Your task to perform on an android device: change the clock display to analog Image 0: 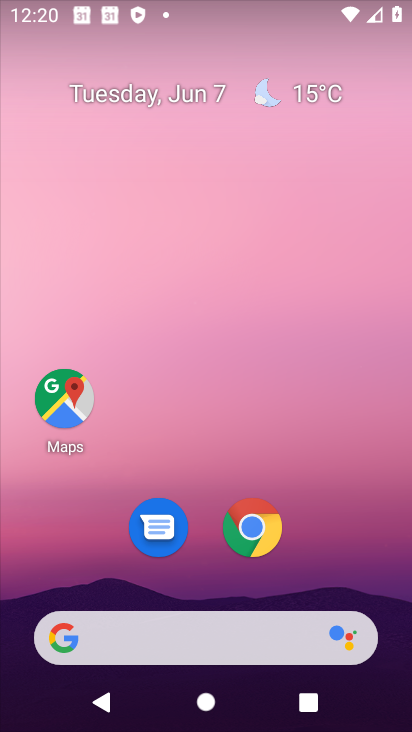
Step 0: drag from (238, 633) to (192, 268)
Your task to perform on an android device: change the clock display to analog Image 1: 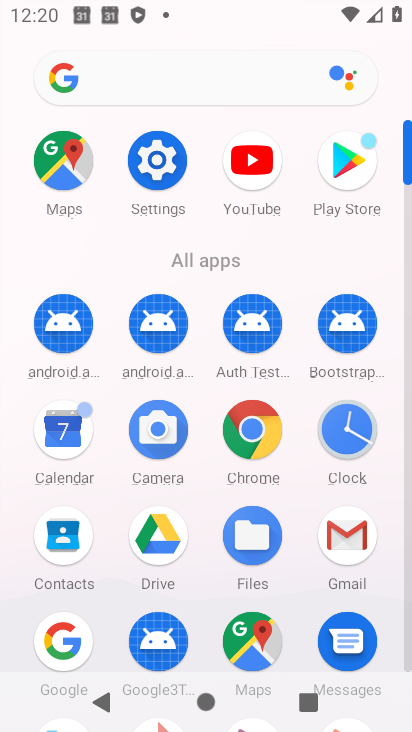
Step 1: click (354, 414)
Your task to perform on an android device: change the clock display to analog Image 2: 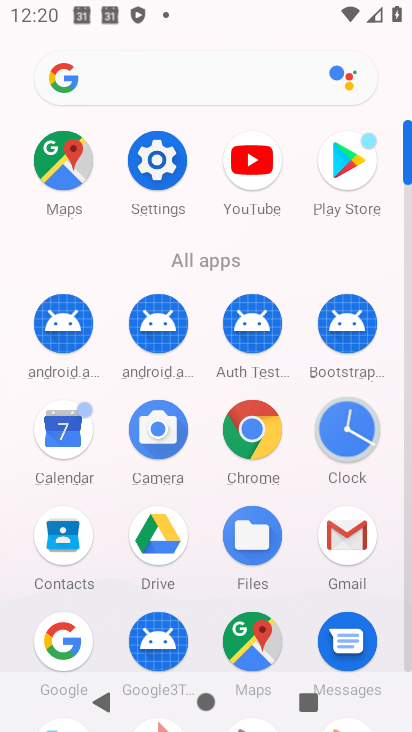
Step 2: click (346, 426)
Your task to perform on an android device: change the clock display to analog Image 3: 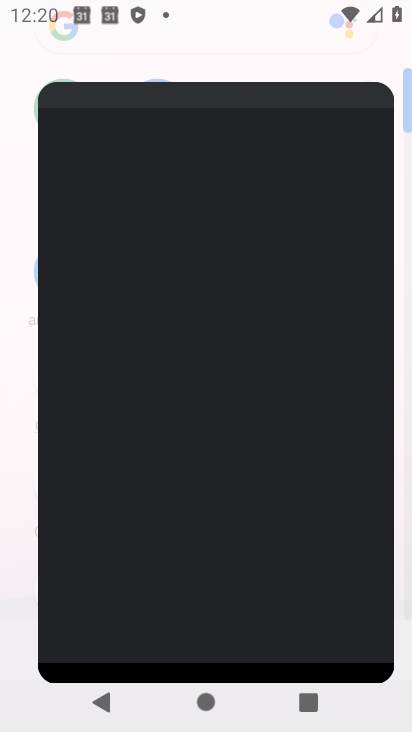
Step 3: click (351, 426)
Your task to perform on an android device: change the clock display to analog Image 4: 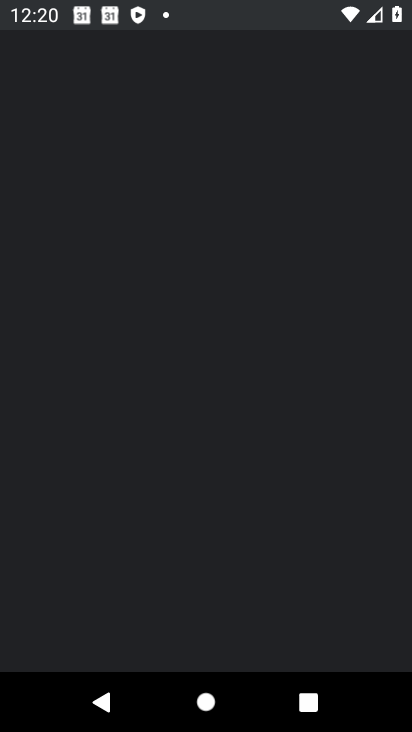
Step 4: click (355, 424)
Your task to perform on an android device: change the clock display to analog Image 5: 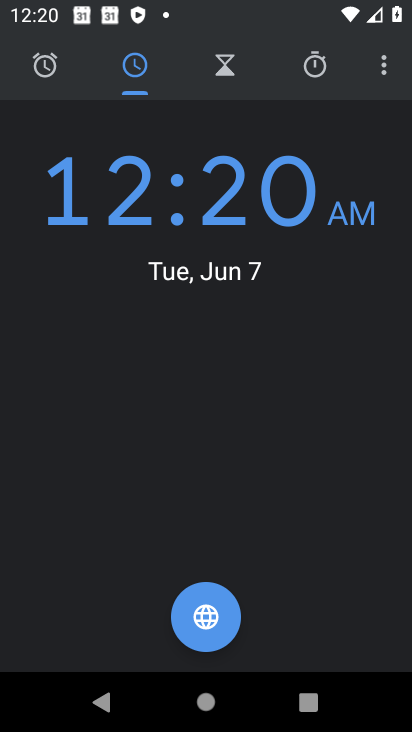
Step 5: click (383, 72)
Your task to perform on an android device: change the clock display to analog Image 6: 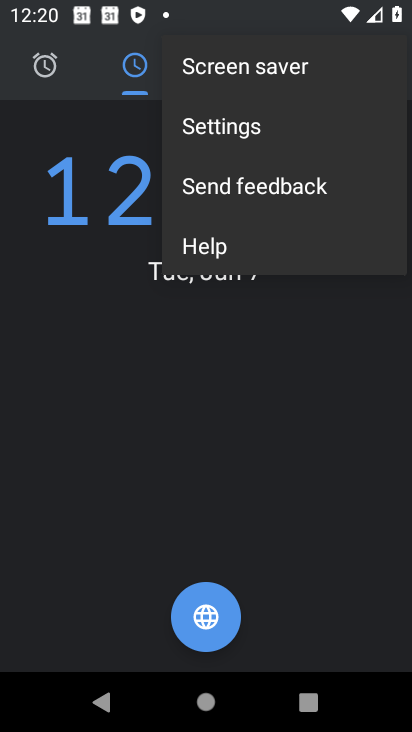
Step 6: click (198, 111)
Your task to perform on an android device: change the clock display to analog Image 7: 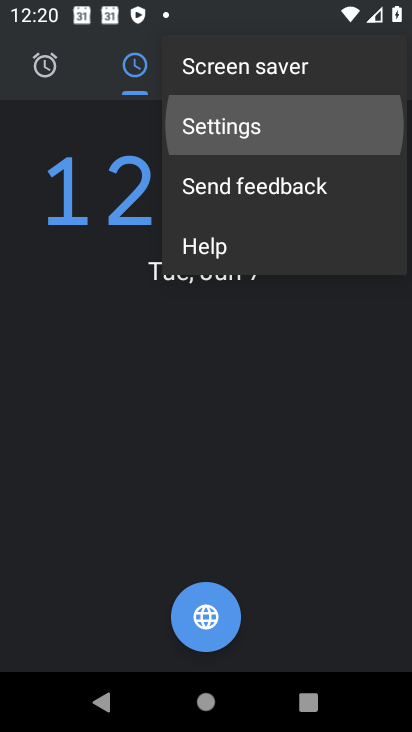
Step 7: click (200, 115)
Your task to perform on an android device: change the clock display to analog Image 8: 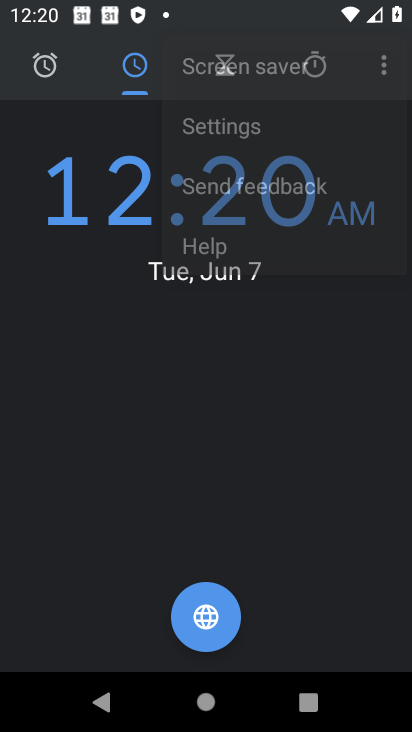
Step 8: click (201, 116)
Your task to perform on an android device: change the clock display to analog Image 9: 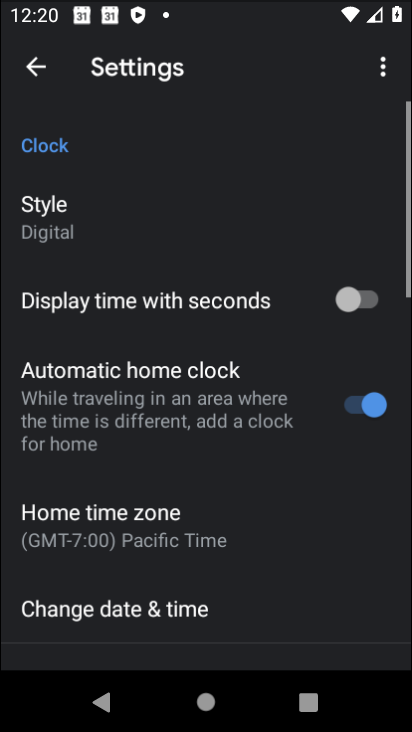
Step 9: click (201, 116)
Your task to perform on an android device: change the clock display to analog Image 10: 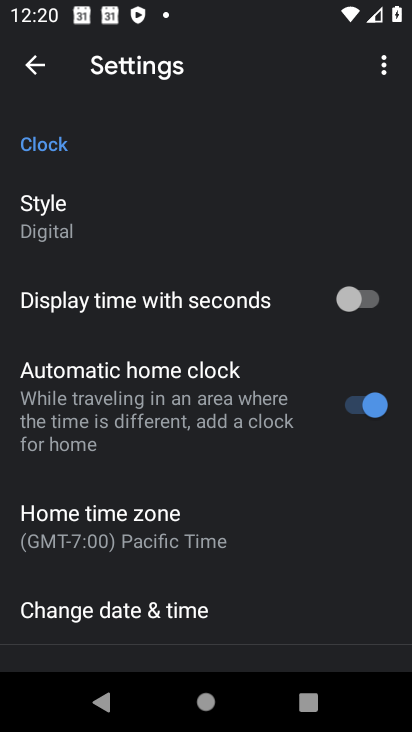
Step 10: click (130, 213)
Your task to perform on an android device: change the clock display to analog Image 11: 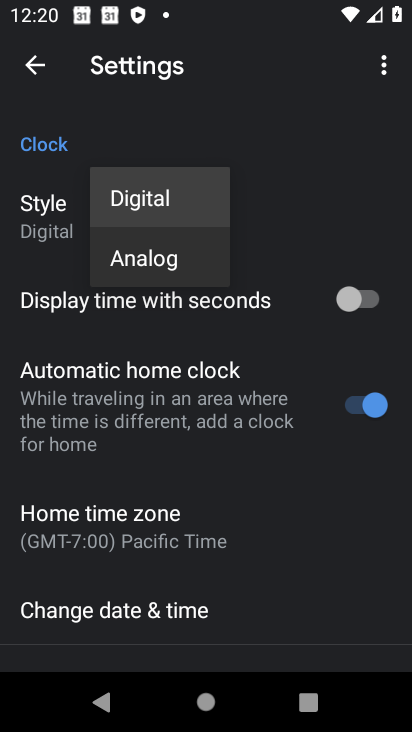
Step 11: click (142, 260)
Your task to perform on an android device: change the clock display to analog Image 12: 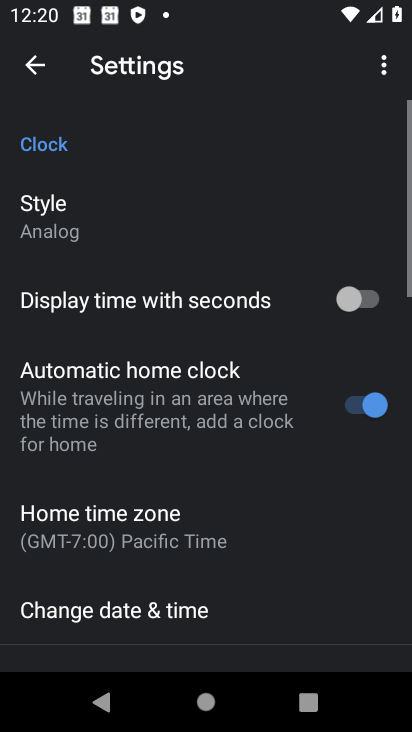
Step 12: task complete